Your task to perform on an android device: Do I have any events today? Image 0: 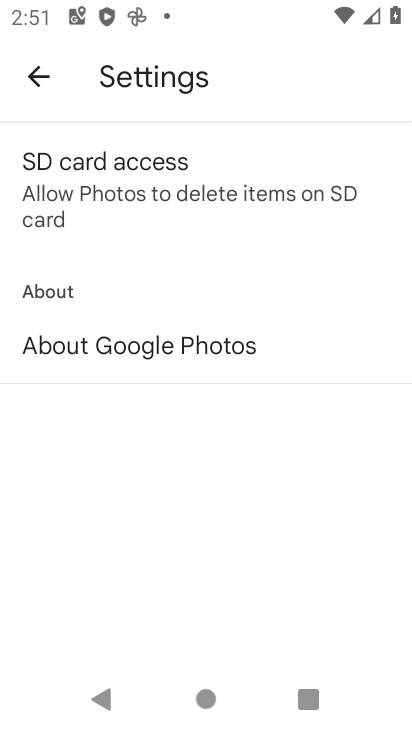
Step 0: press home button
Your task to perform on an android device: Do I have any events today? Image 1: 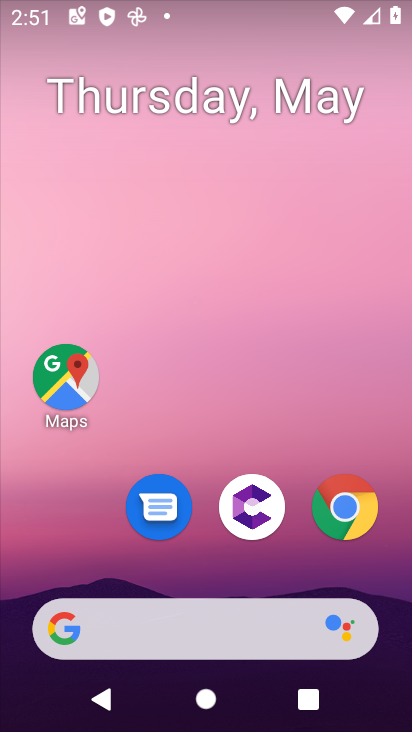
Step 1: drag from (254, 284) to (233, 15)
Your task to perform on an android device: Do I have any events today? Image 2: 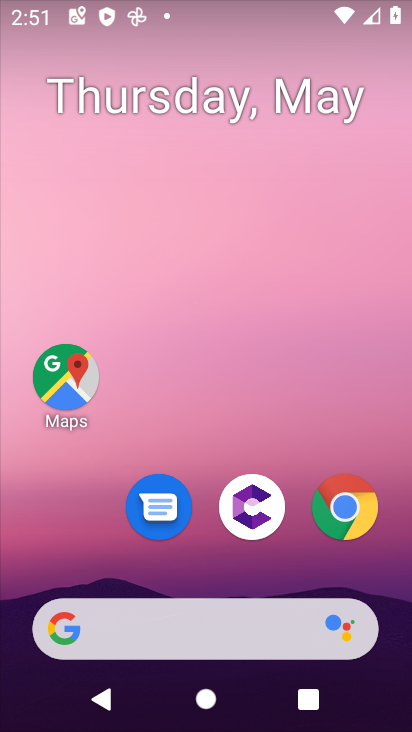
Step 2: drag from (230, 413) to (161, 0)
Your task to perform on an android device: Do I have any events today? Image 3: 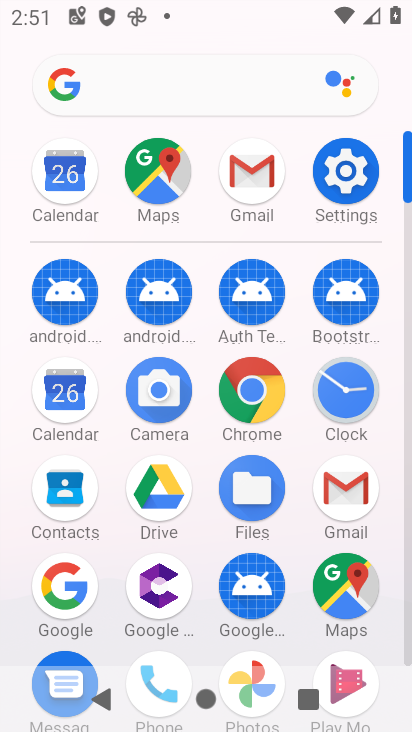
Step 3: click (57, 173)
Your task to perform on an android device: Do I have any events today? Image 4: 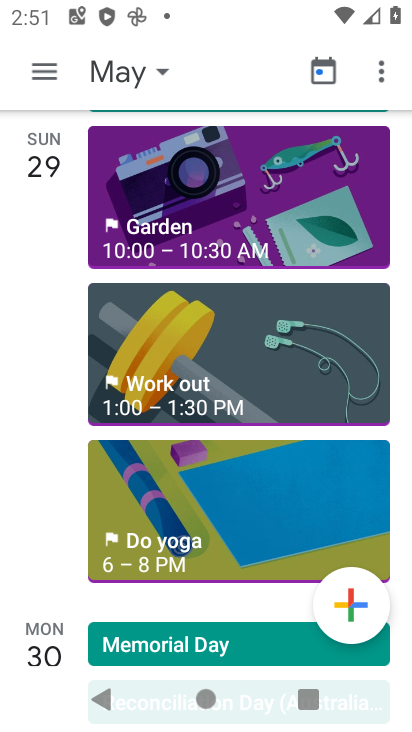
Step 4: task complete